Your task to perform on an android device: change the clock display to analog Image 0: 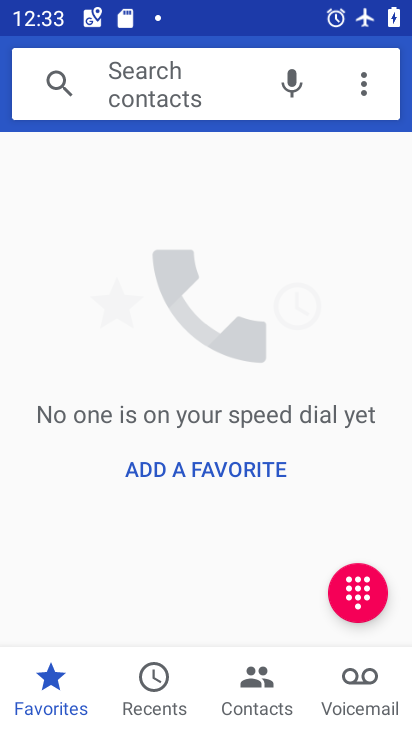
Step 0: press home button
Your task to perform on an android device: change the clock display to analog Image 1: 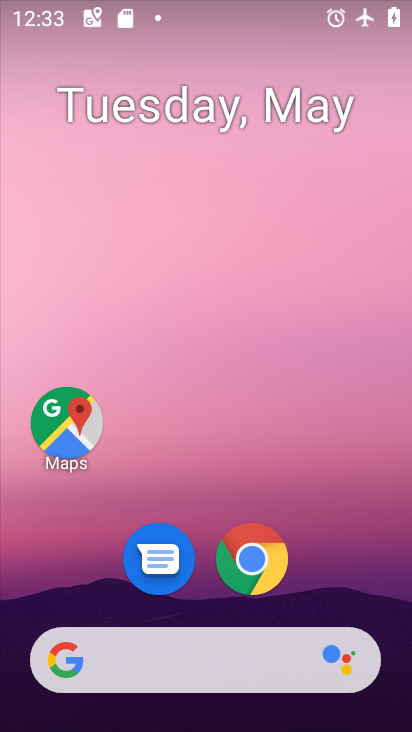
Step 1: drag from (330, 598) to (240, 172)
Your task to perform on an android device: change the clock display to analog Image 2: 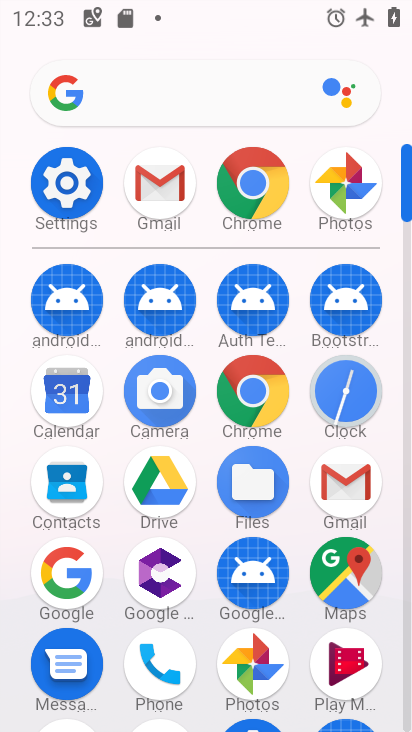
Step 2: click (358, 375)
Your task to perform on an android device: change the clock display to analog Image 3: 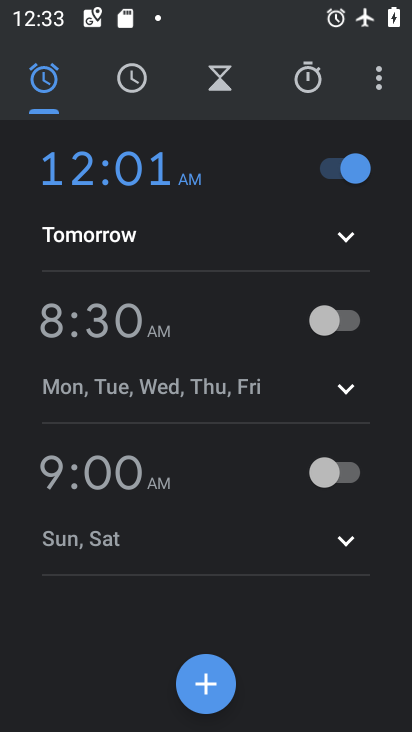
Step 3: click (384, 75)
Your task to perform on an android device: change the clock display to analog Image 4: 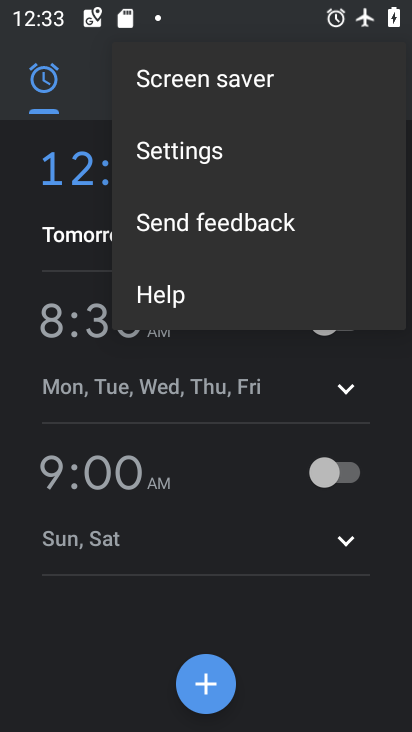
Step 4: click (254, 157)
Your task to perform on an android device: change the clock display to analog Image 5: 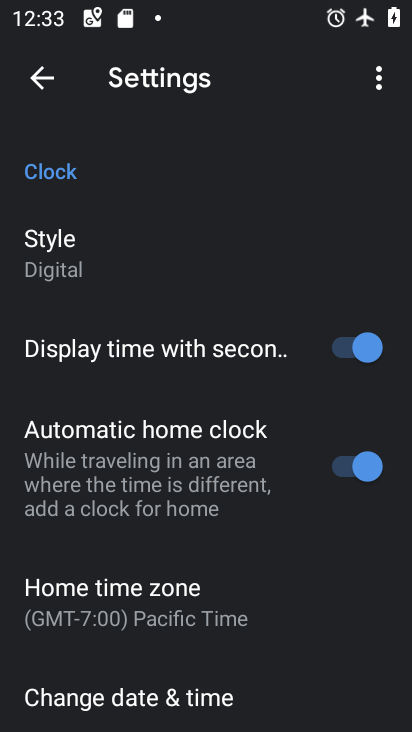
Step 5: click (178, 259)
Your task to perform on an android device: change the clock display to analog Image 6: 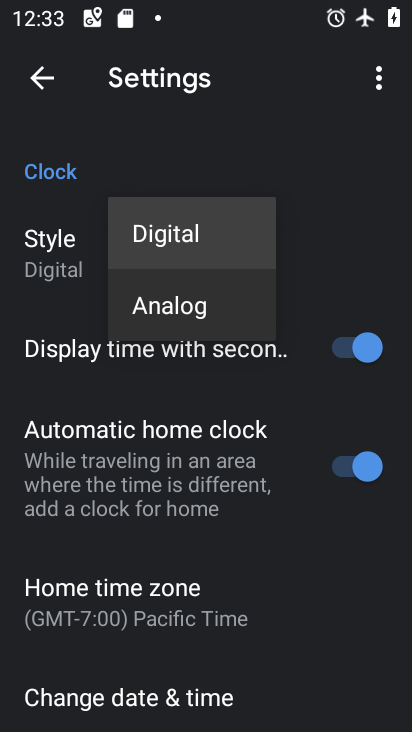
Step 6: click (181, 318)
Your task to perform on an android device: change the clock display to analog Image 7: 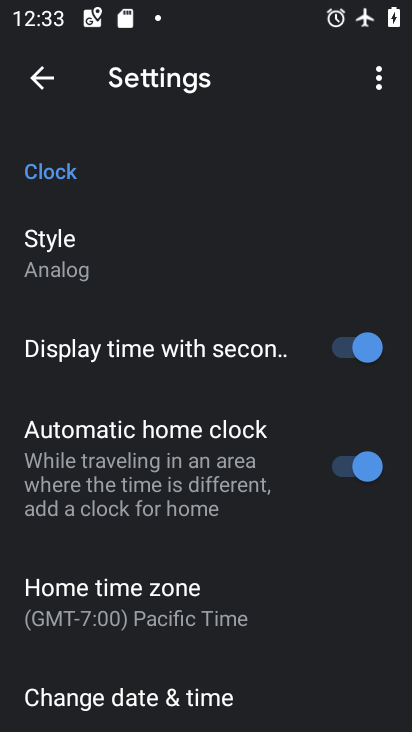
Step 7: task complete